Your task to perform on an android device: Open the stopwatch Image 0: 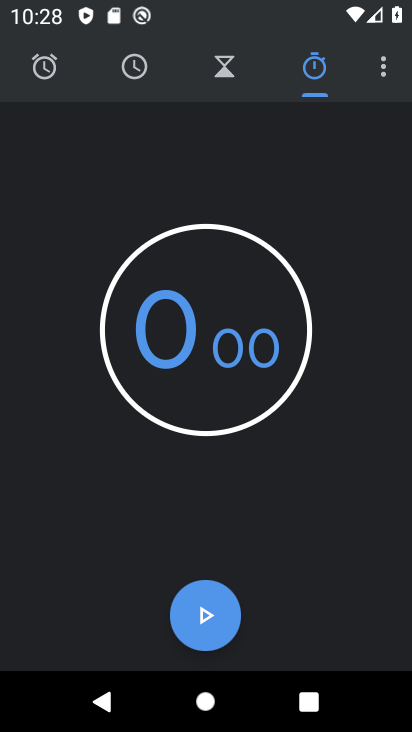
Step 0: task complete